Your task to perform on an android device: Open the Play Movies app and select the watchlist tab. Image 0: 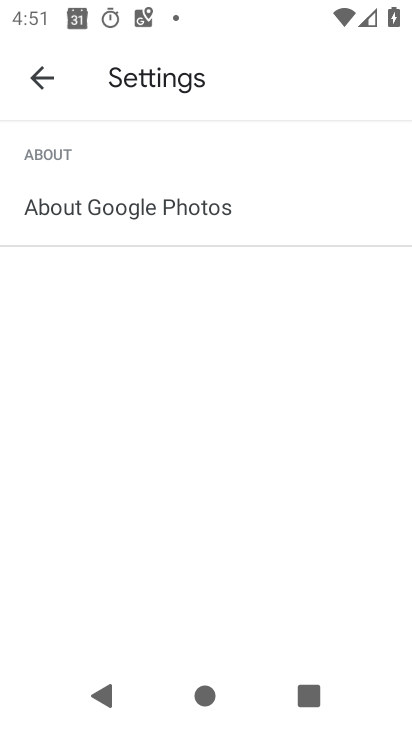
Step 0: press back button
Your task to perform on an android device: Open the Play Movies app and select the watchlist tab. Image 1: 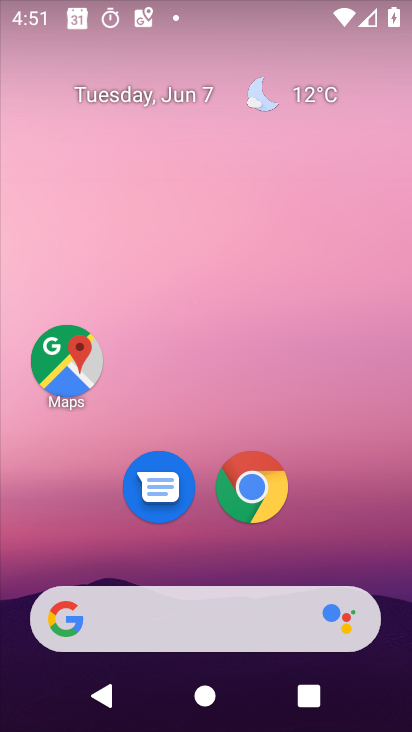
Step 1: drag from (207, 512) to (251, 30)
Your task to perform on an android device: Open the Play Movies app and select the watchlist tab. Image 2: 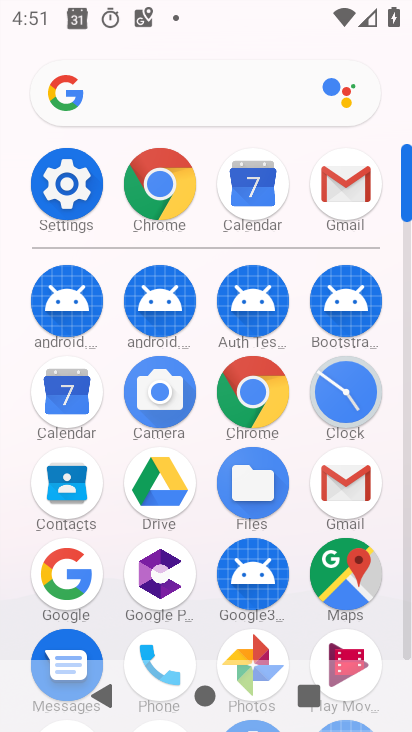
Step 2: click (345, 645)
Your task to perform on an android device: Open the Play Movies app and select the watchlist tab. Image 3: 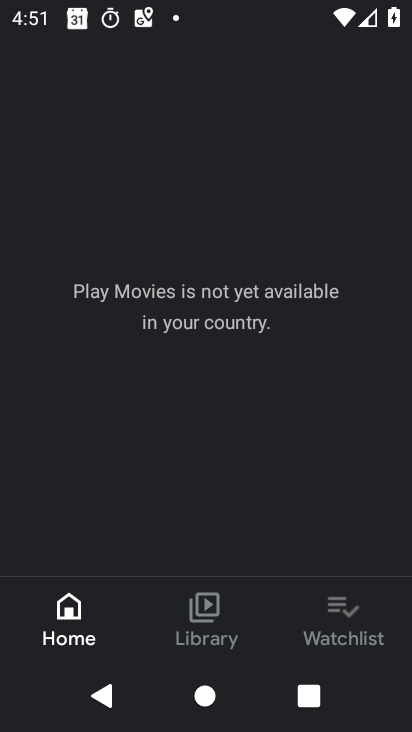
Step 3: click (362, 621)
Your task to perform on an android device: Open the Play Movies app and select the watchlist tab. Image 4: 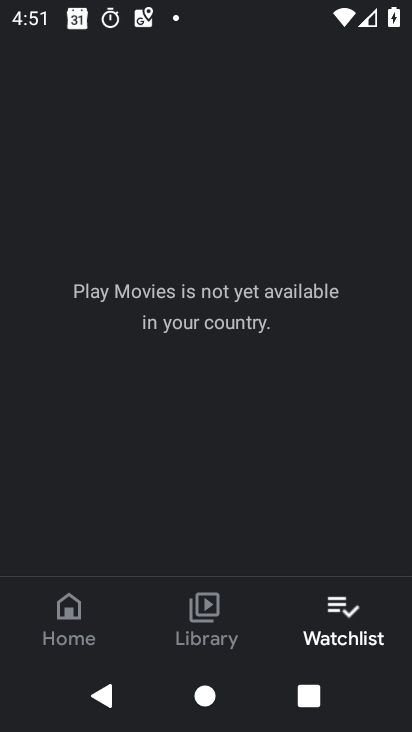
Step 4: task complete